Your task to perform on an android device: Open Youtube and go to "Your channel" Image 0: 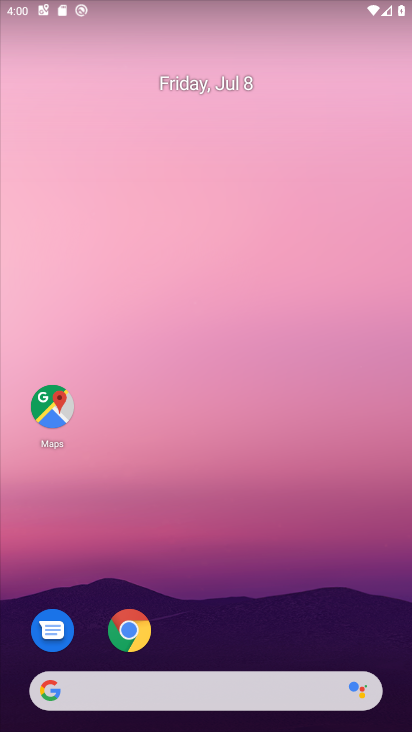
Step 0: drag from (277, 460) to (277, 60)
Your task to perform on an android device: Open Youtube and go to "Your channel" Image 1: 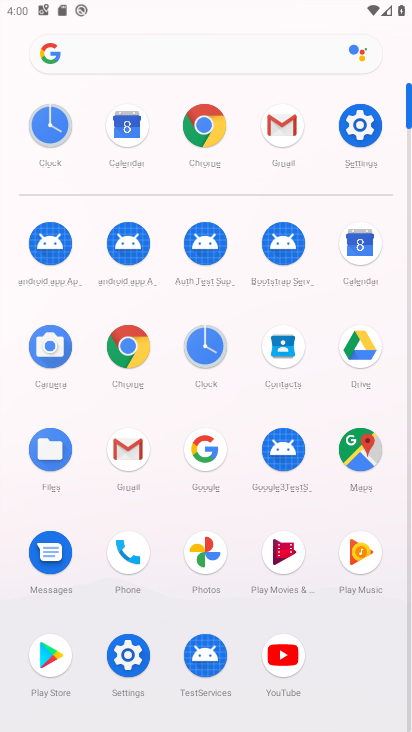
Step 1: click (297, 647)
Your task to perform on an android device: Open Youtube and go to "Your channel" Image 2: 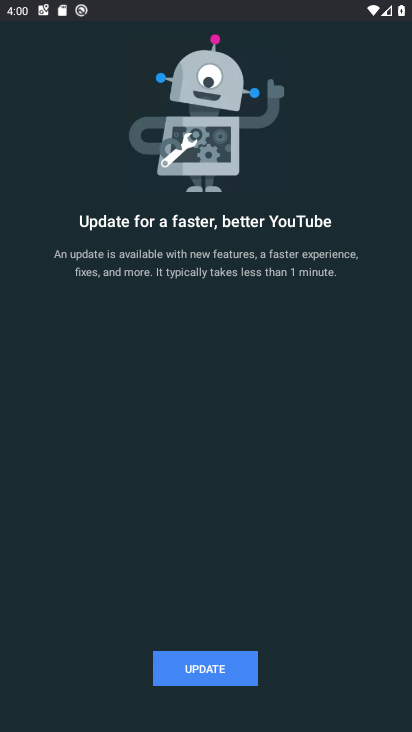
Step 2: task complete